Your task to perform on an android device: Go to wifi settings Image 0: 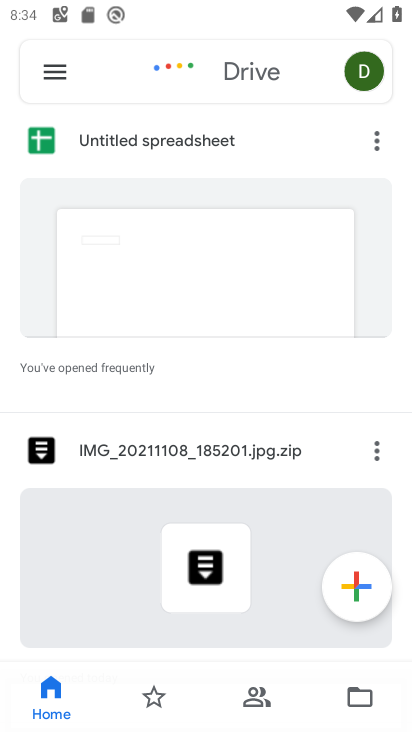
Step 0: press home button
Your task to perform on an android device: Go to wifi settings Image 1: 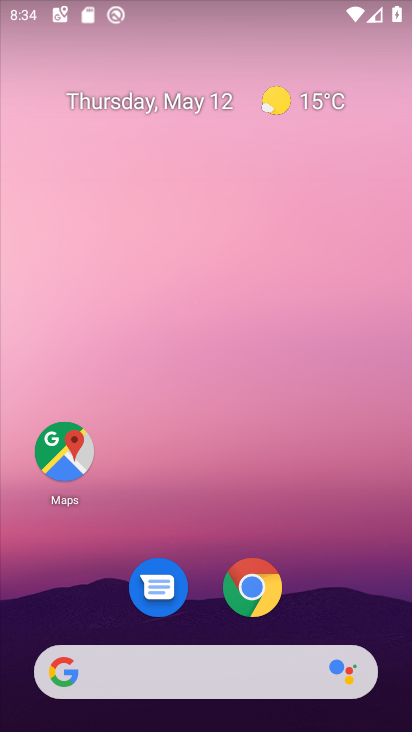
Step 1: drag from (396, 610) to (320, 87)
Your task to perform on an android device: Go to wifi settings Image 2: 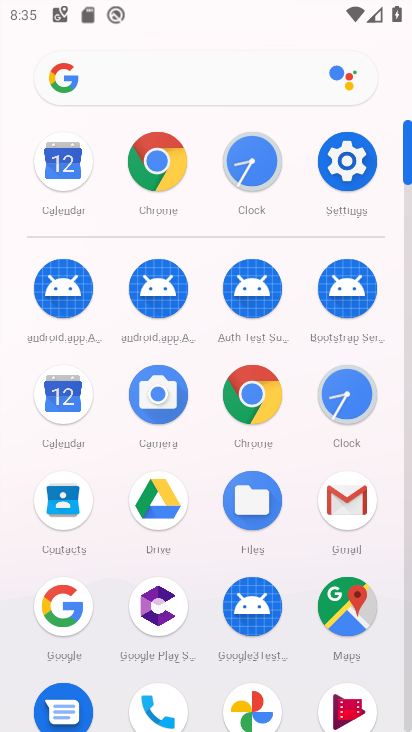
Step 2: click (340, 149)
Your task to perform on an android device: Go to wifi settings Image 3: 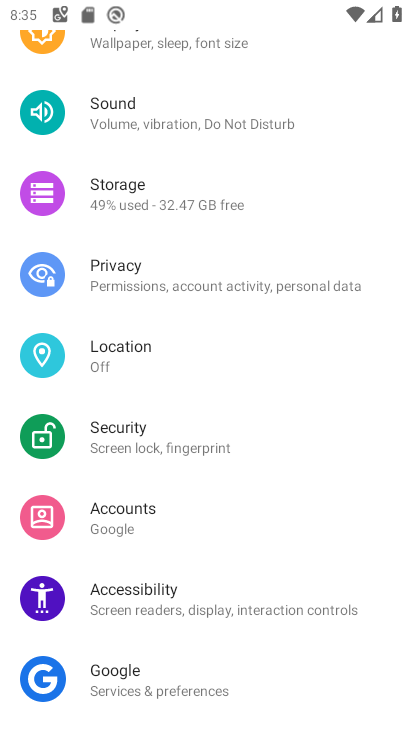
Step 3: drag from (260, 213) to (202, 671)
Your task to perform on an android device: Go to wifi settings Image 4: 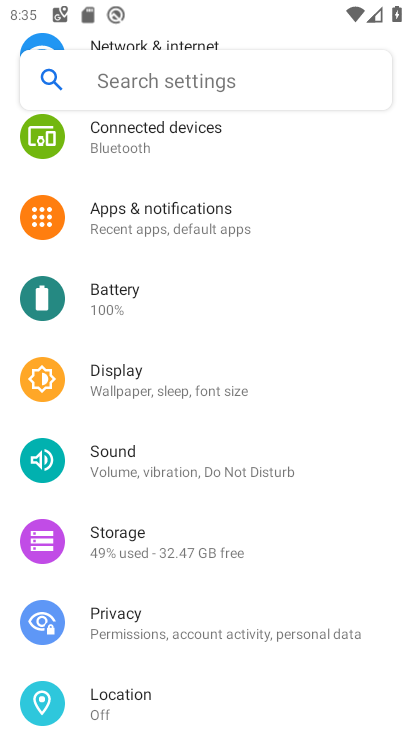
Step 4: drag from (185, 186) to (196, 487)
Your task to perform on an android device: Go to wifi settings Image 5: 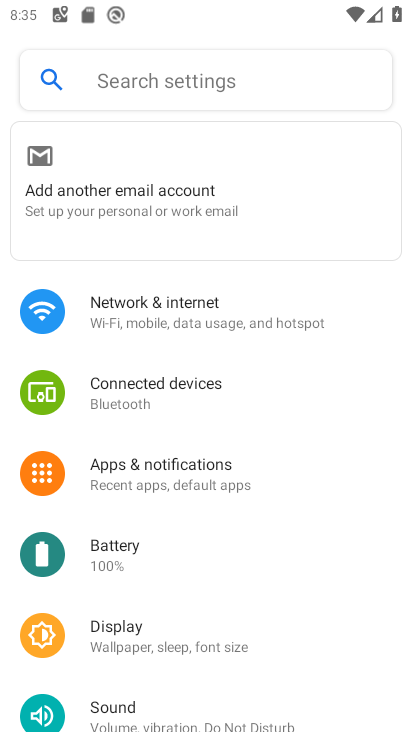
Step 5: click (189, 304)
Your task to perform on an android device: Go to wifi settings Image 6: 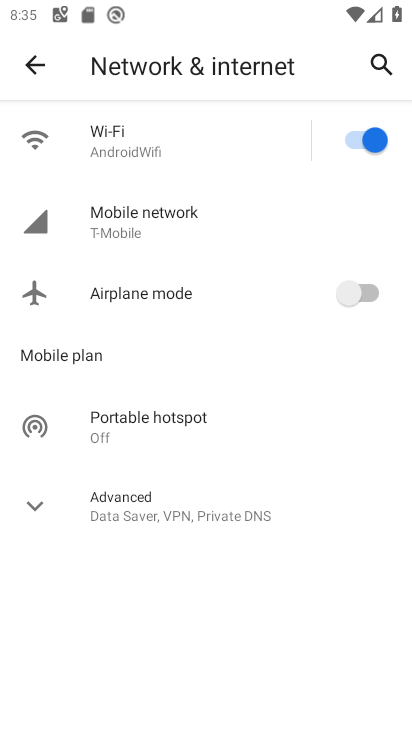
Step 6: click (206, 143)
Your task to perform on an android device: Go to wifi settings Image 7: 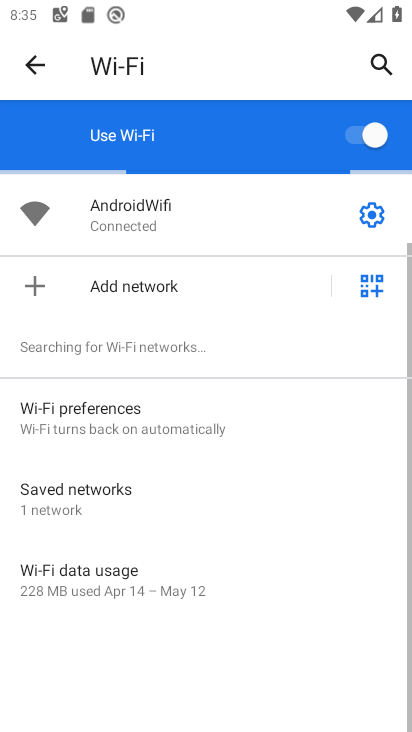
Step 7: task complete